Your task to perform on an android device: check storage Image 0: 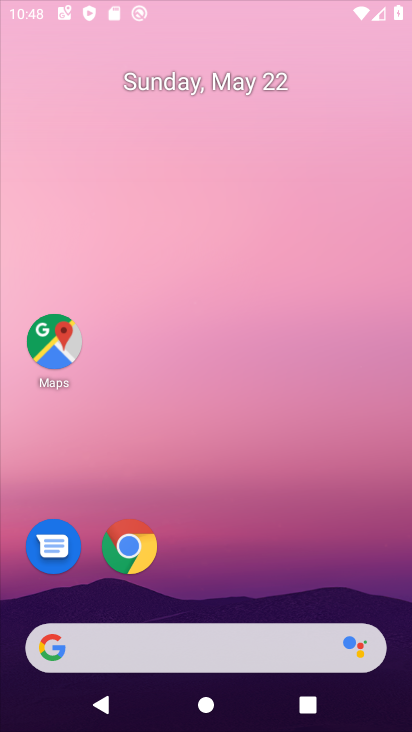
Step 0: drag from (214, 599) to (261, 32)
Your task to perform on an android device: check storage Image 1: 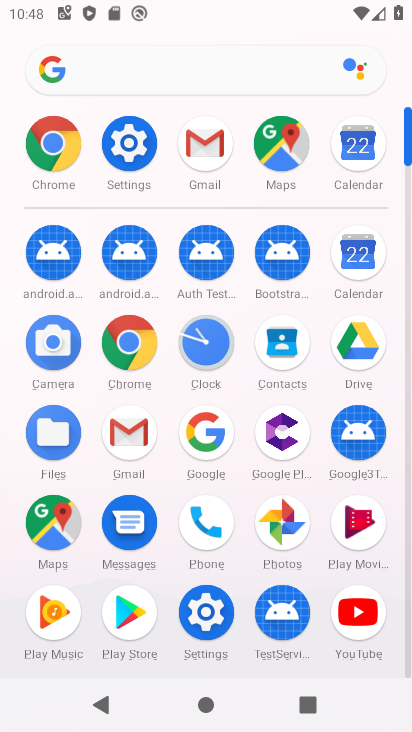
Step 1: click (140, 164)
Your task to perform on an android device: check storage Image 2: 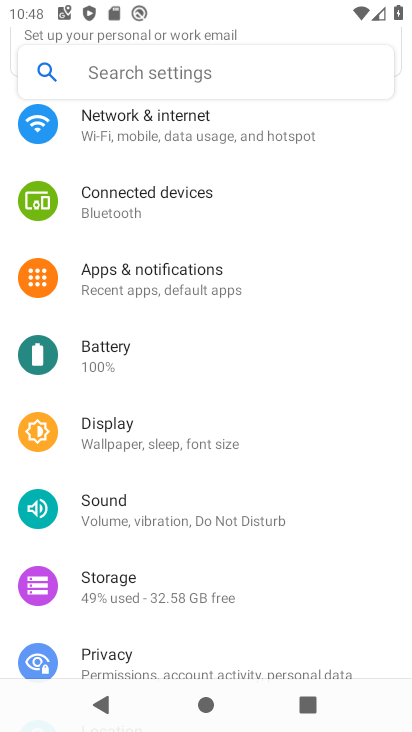
Step 2: click (135, 595)
Your task to perform on an android device: check storage Image 3: 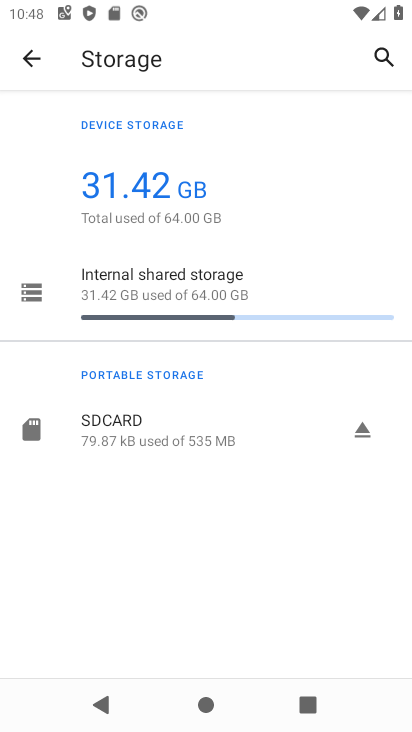
Step 3: click (161, 292)
Your task to perform on an android device: check storage Image 4: 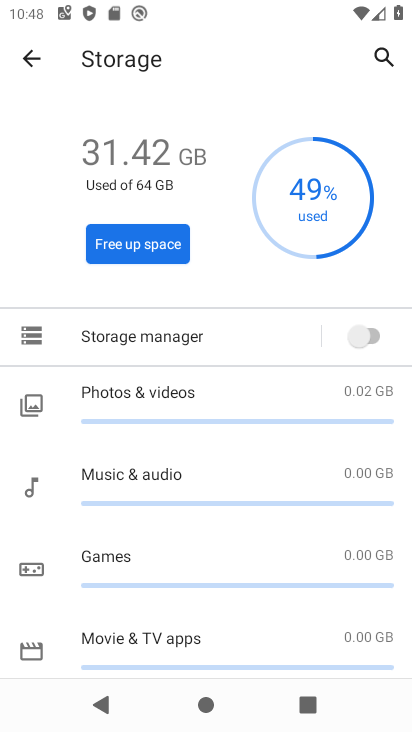
Step 4: task complete